Your task to perform on an android device: add a contact Image 0: 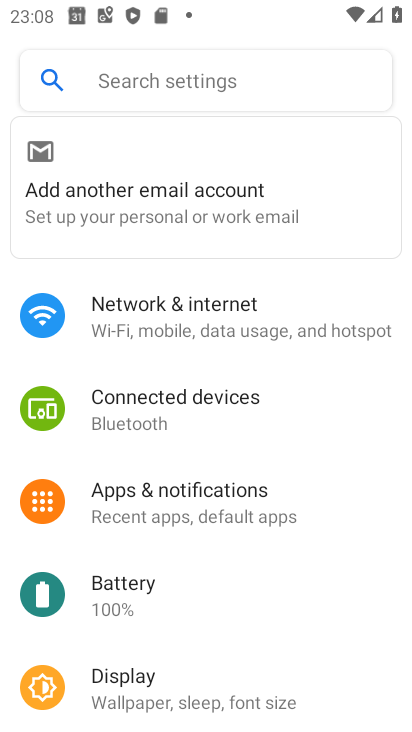
Step 0: drag from (239, 586) to (241, 287)
Your task to perform on an android device: add a contact Image 1: 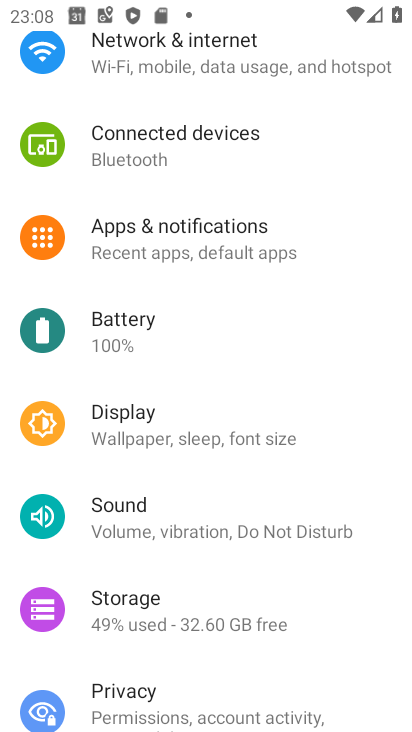
Step 1: press home button
Your task to perform on an android device: add a contact Image 2: 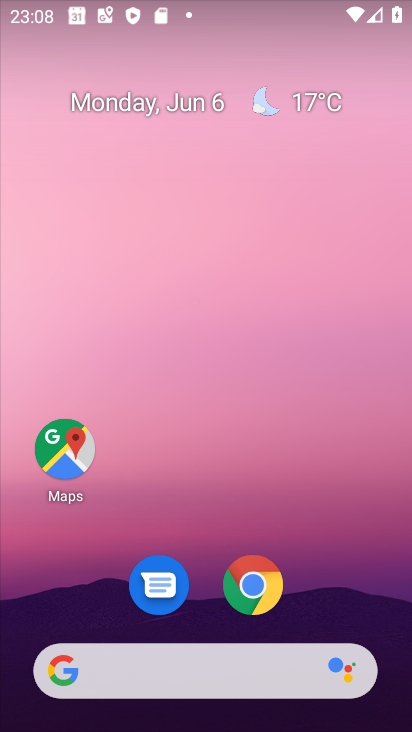
Step 2: drag from (245, 489) to (279, 17)
Your task to perform on an android device: add a contact Image 3: 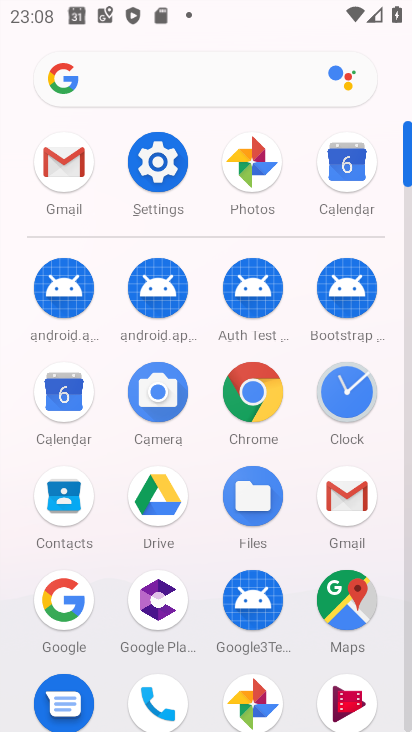
Step 3: click (71, 489)
Your task to perform on an android device: add a contact Image 4: 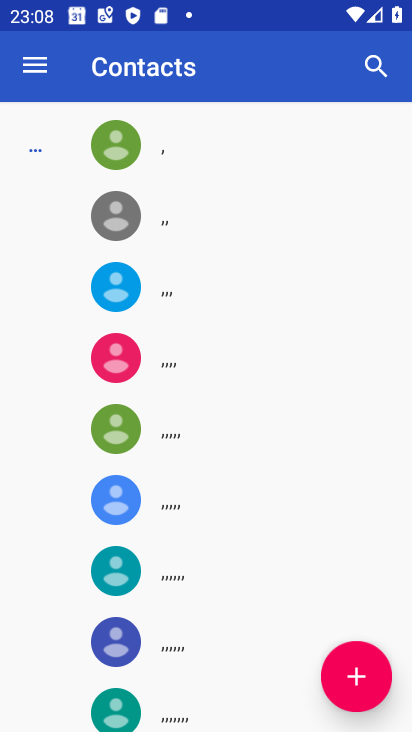
Step 4: click (348, 657)
Your task to perform on an android device: add a contact Image 5: 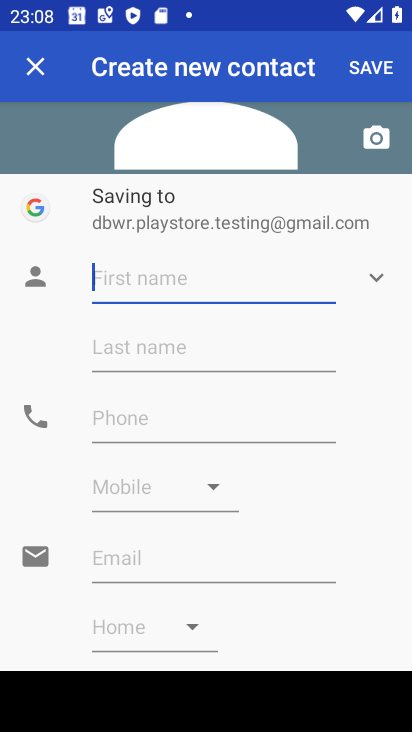
Step 5: type "Vibhishan"
Your task to perform on an android device: add a contact Image 6: 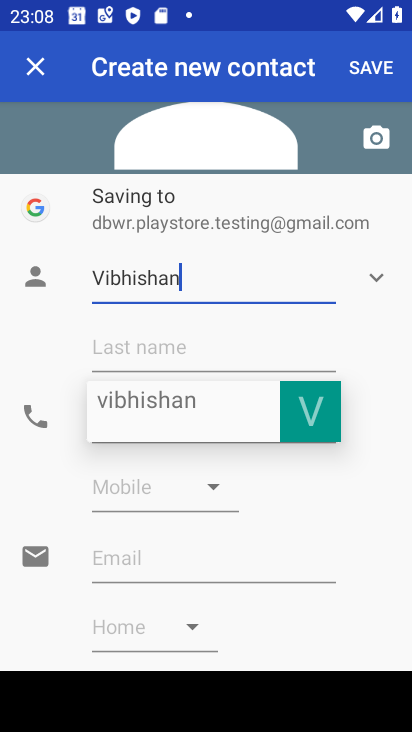
Step 6: click (309, 470)
Your task to perform on an android device: add a contact Image 7: 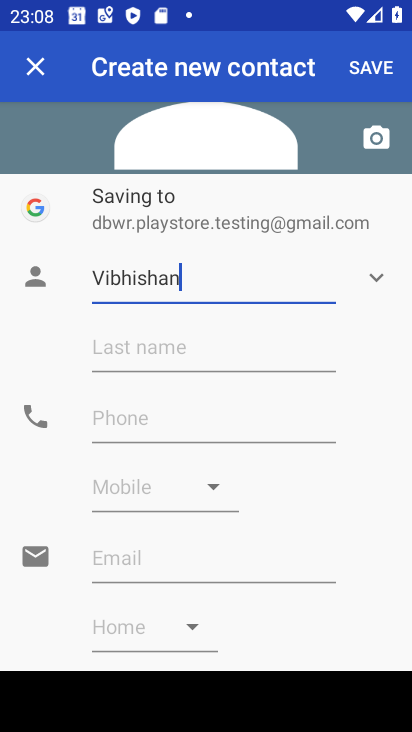
Step 7: click (277, 436)
Your task to perform on an android device: add a contact Image 8: 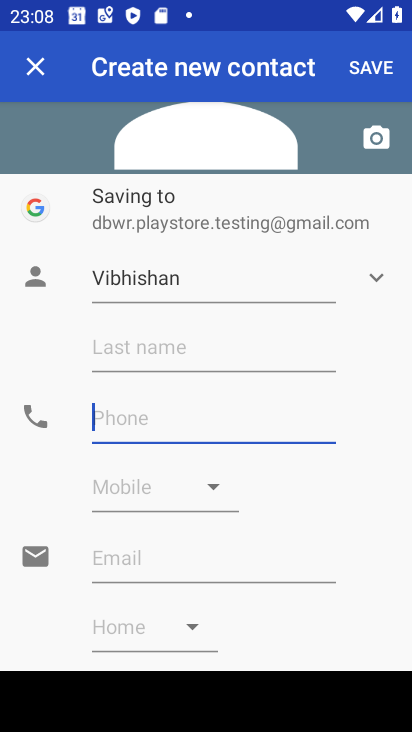
Step 8: type "033555777222"
Your task to perform on an android device: add a contact Image 9: 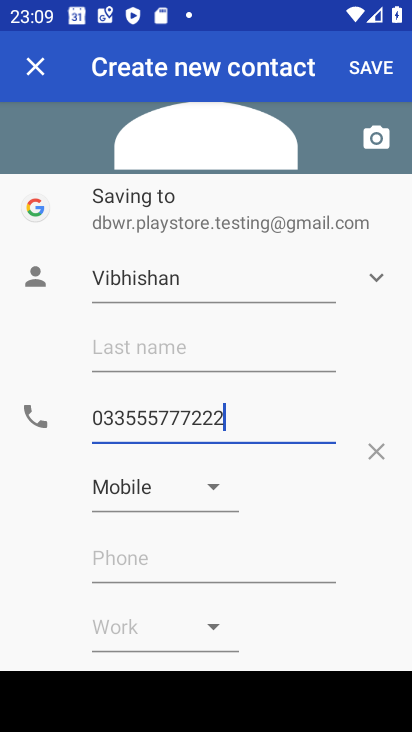
Step 9: click (375, 66)
Your task to perform on an android device: add a contact Image 10: 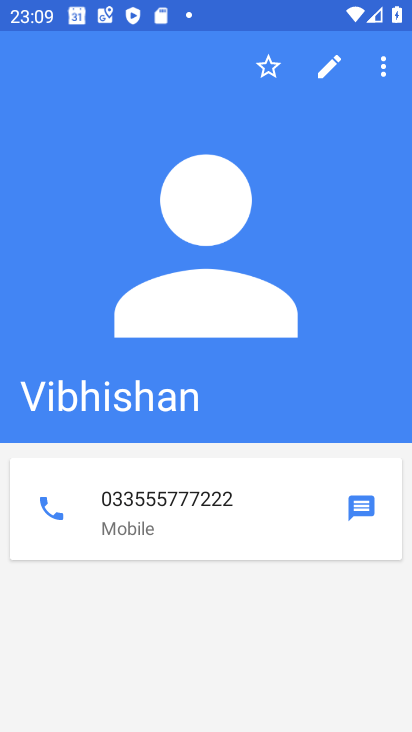
Step 10: task complete